Your task to perform on an android device: Search for vegetarian restaurants on Maps Image 0: 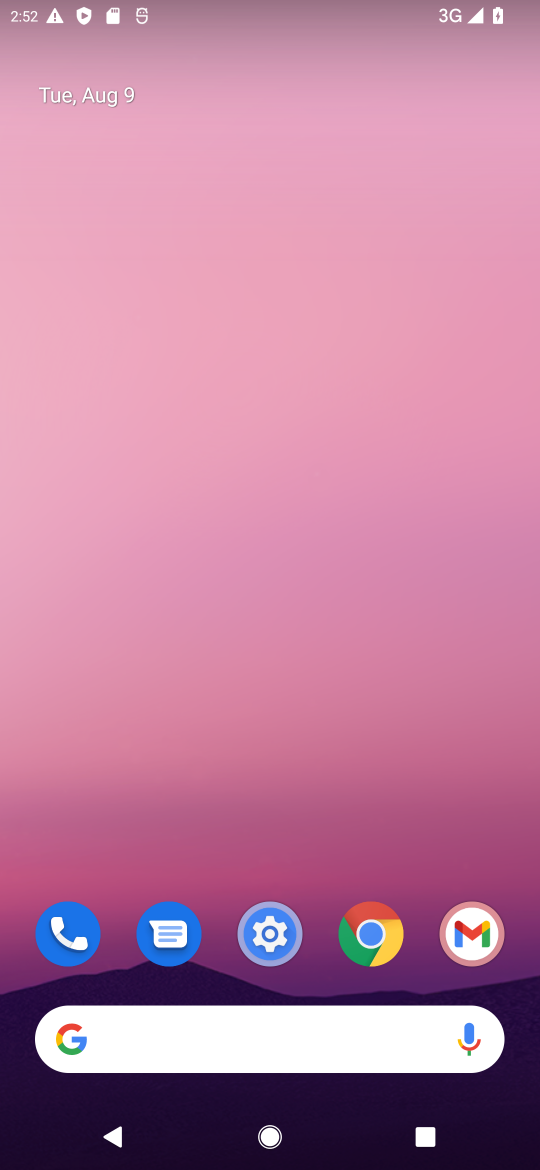
Step 0: task complete